Your task to perform on an android device: set an alarm Image 0: 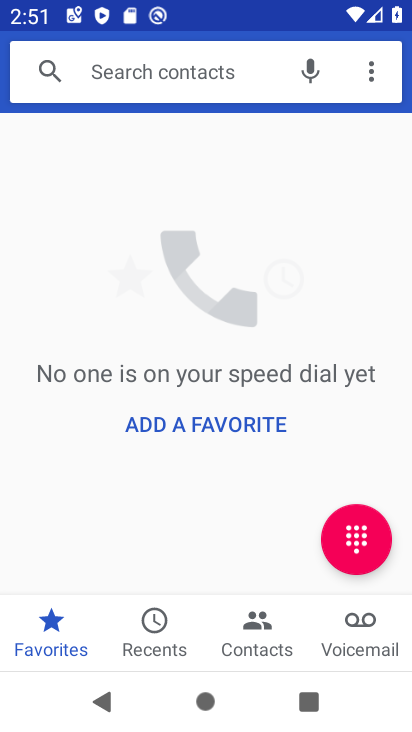
Step 0: press home button
Your task to perform on an android device: set an alarm Image 1: 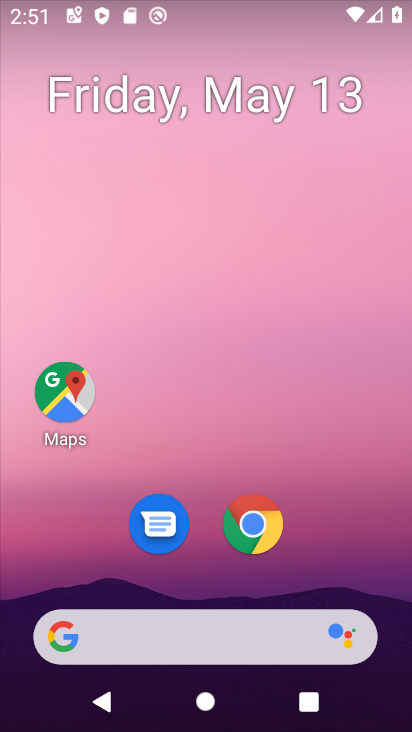
Step 1: drag from (309, 525) to (339, 48)
Your task to perform on an android device: set an alarm Image 2: 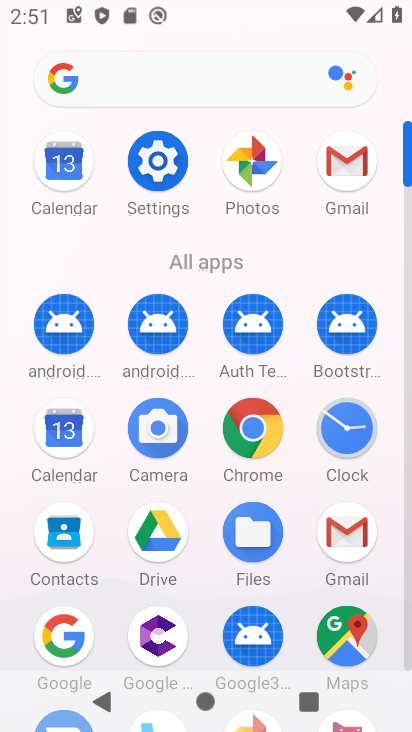
Step 2: click (335, 431)
Your task to perform on an android device: set an alarm Image 3: 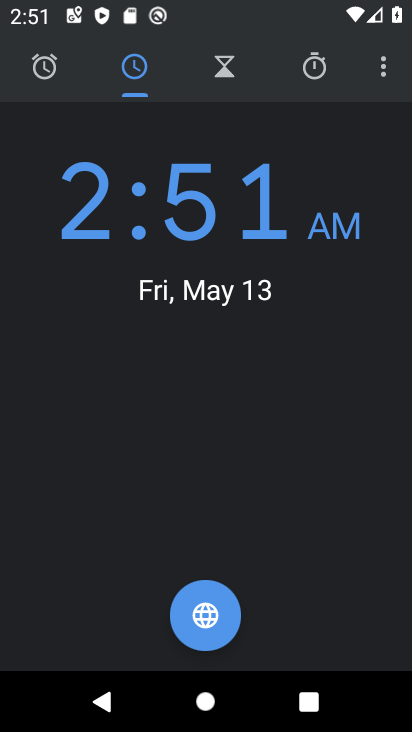
Step 3: click (53, 63)
Your task to perform on an android device: set an alarm Image 4: 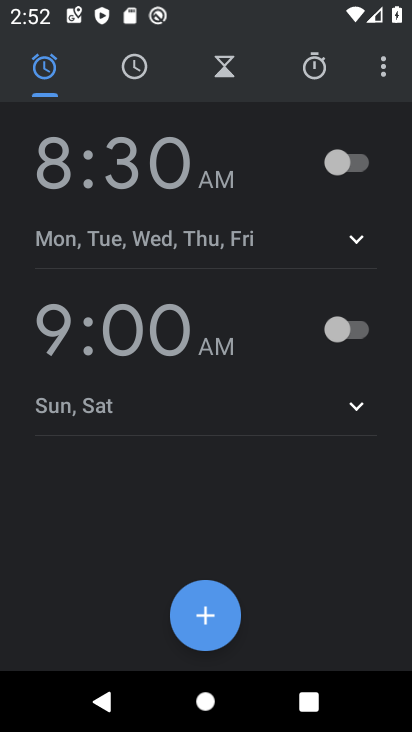
Step 4: click (200, 644)
Your task to perform on an android device: set an alarm Image 5: 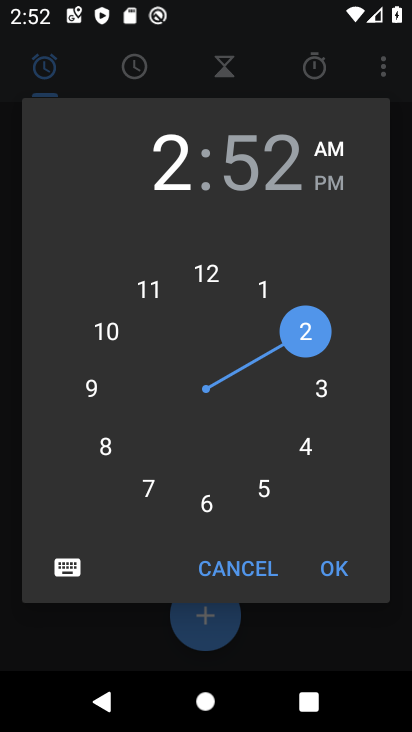
Step 5: click (259, 171)
Your task to perform on an android device: set an alarm Image 6: 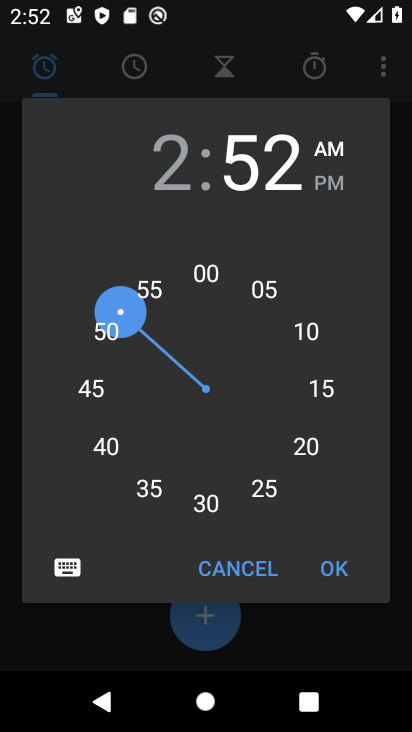
Step 6: click (213, 264)
Your task to perform on an android device: set an alarm Image 7: 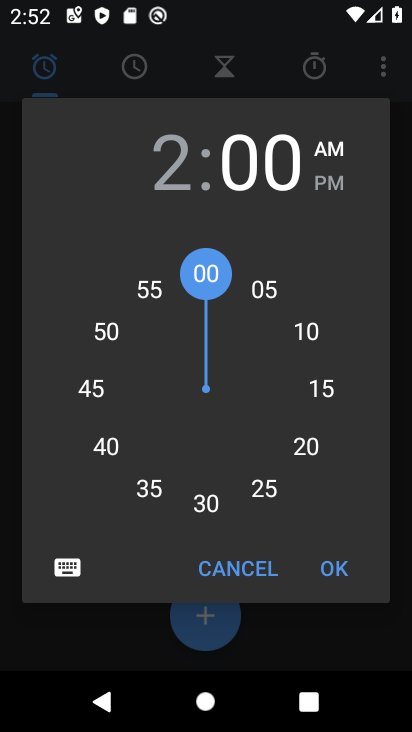
Step 7: click (315, 177)
Your task to perform on an android device: set an alarm Image 8: 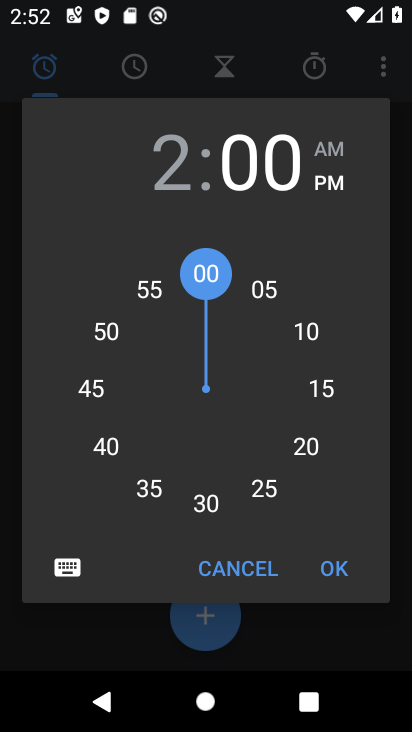
Step 8: click (330, 567)
Your task to perform on an android device: set an alarm Image 9: 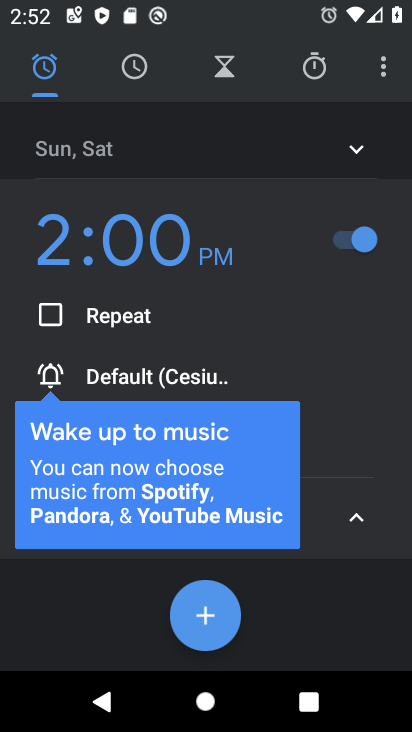
Step 9: task complete